Your task to perform on an android device: Open Google Image 0: 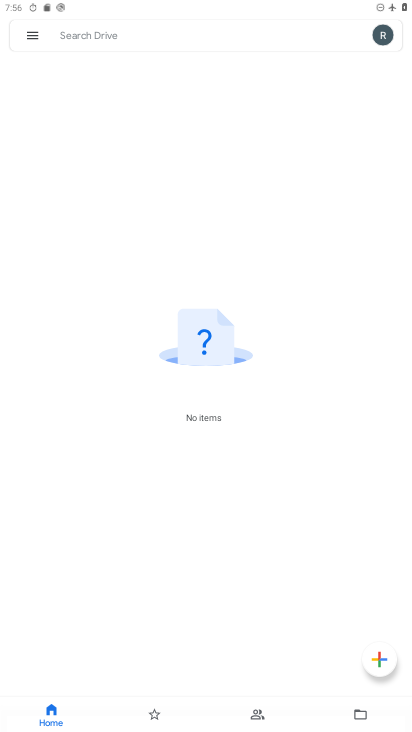
Step 0: press home button
Your task to perform on an android device: Open Google Image 1: 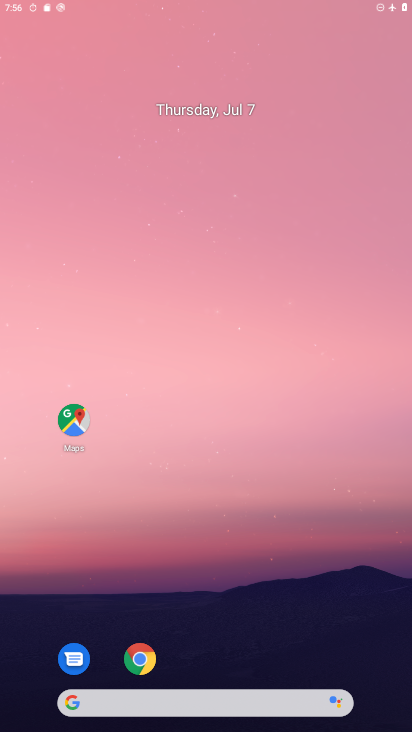
Step 1: drag from (393, 675) to (218, 20)
Your task to perform on an android device: Open Google Image 2: 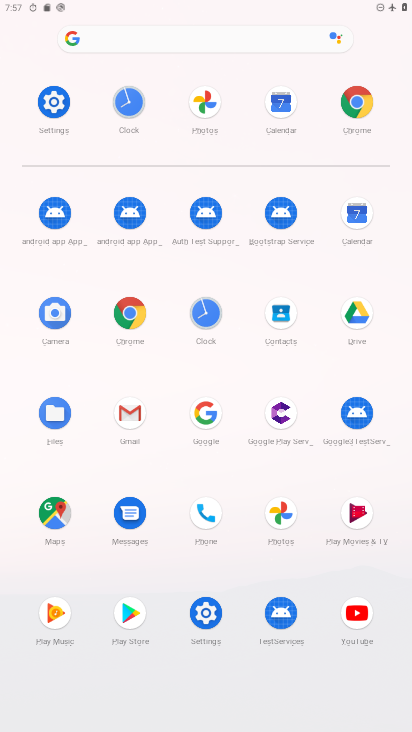
Step 2: click (208, 402)
Your task to perform on an android device: Open Google Image 3: 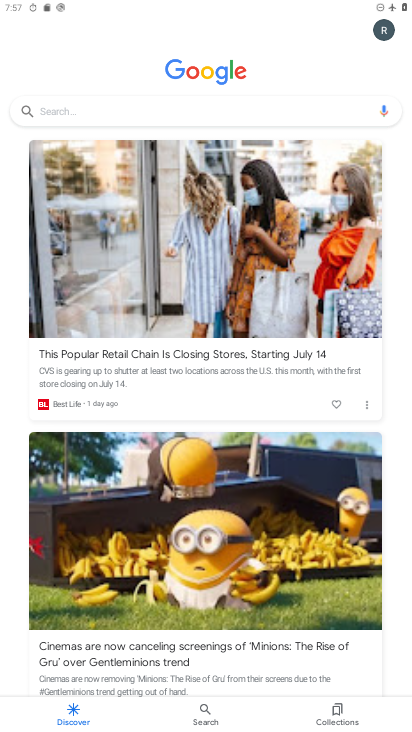
Step 3: task complete